Your task to perform on an android device: search for outdoor chairs on article.com Image 0: 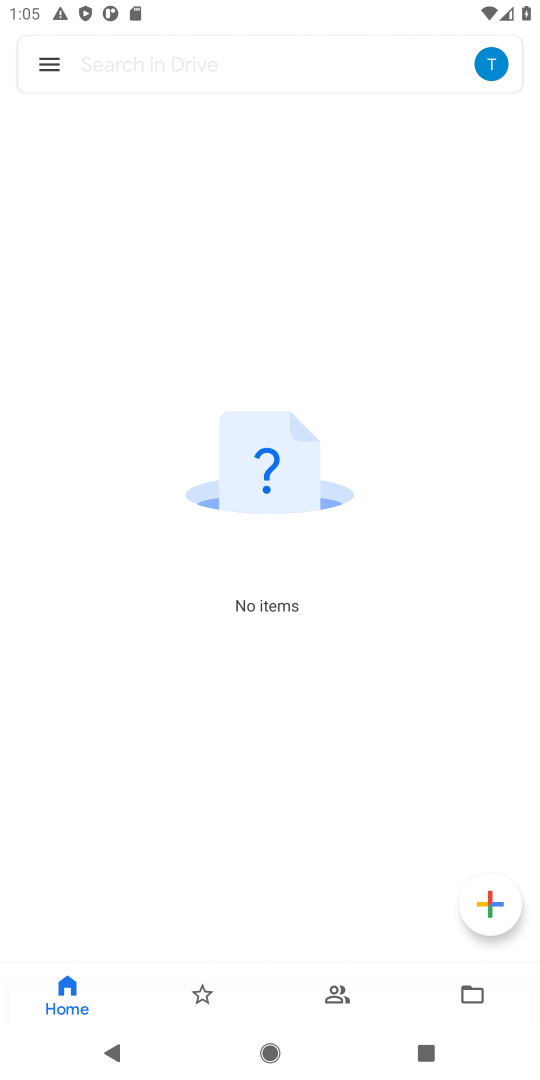
Step 0: press home button
Your task to perform on an android device: search for outdoor chairs on article.com Image 1: 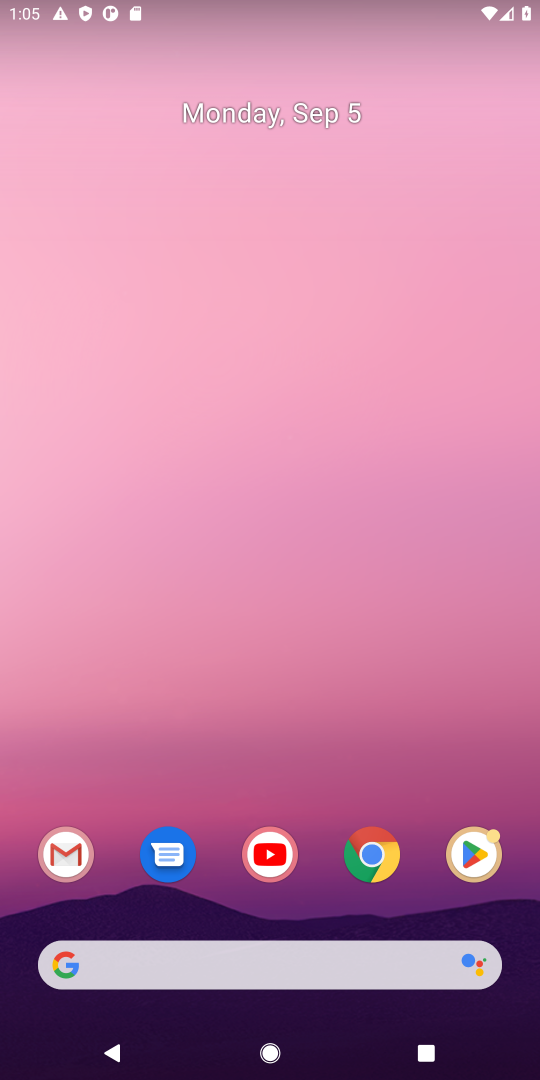
Step 1: click (326, 961)
Your task to perform on an android device: search for outdoor chairs on article.com Image 2: 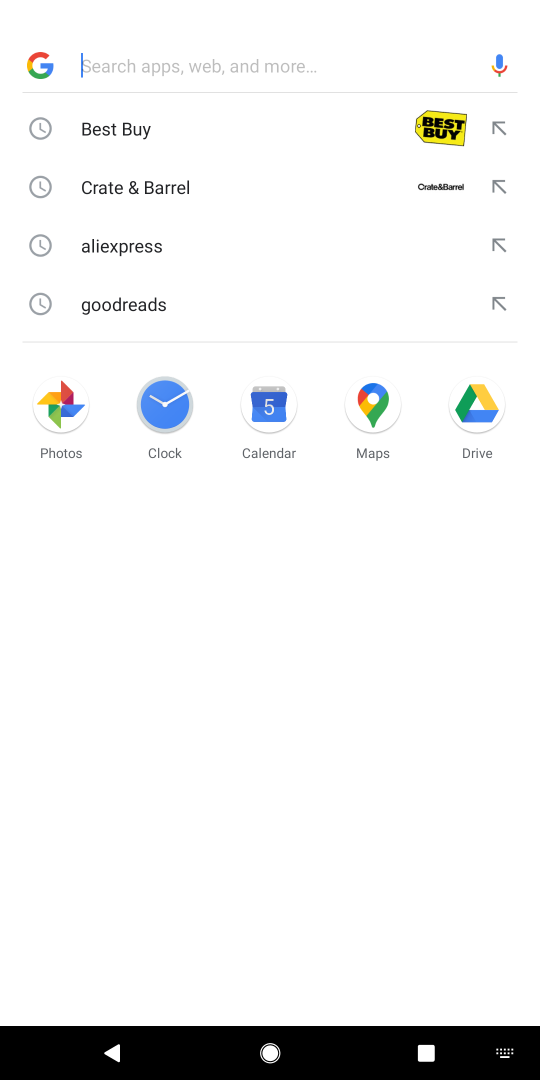
Step 2: press enter
Your task to perform on an android device: search for outdoor chairs on article.com Image 3: 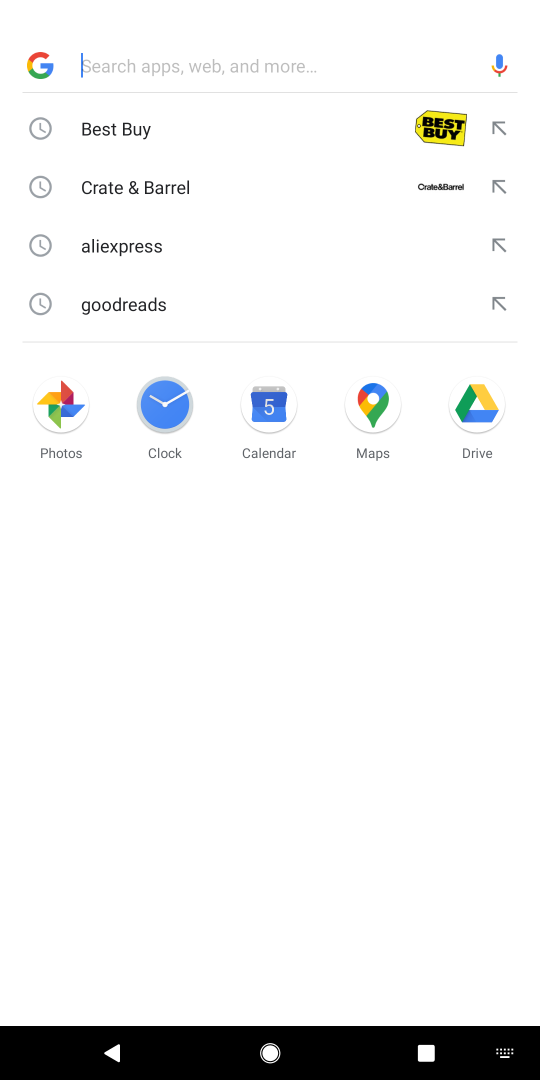
Step 3: type "article.com"
Your task to perform on an android device: search for outdoor chairs on article.com Image 4: 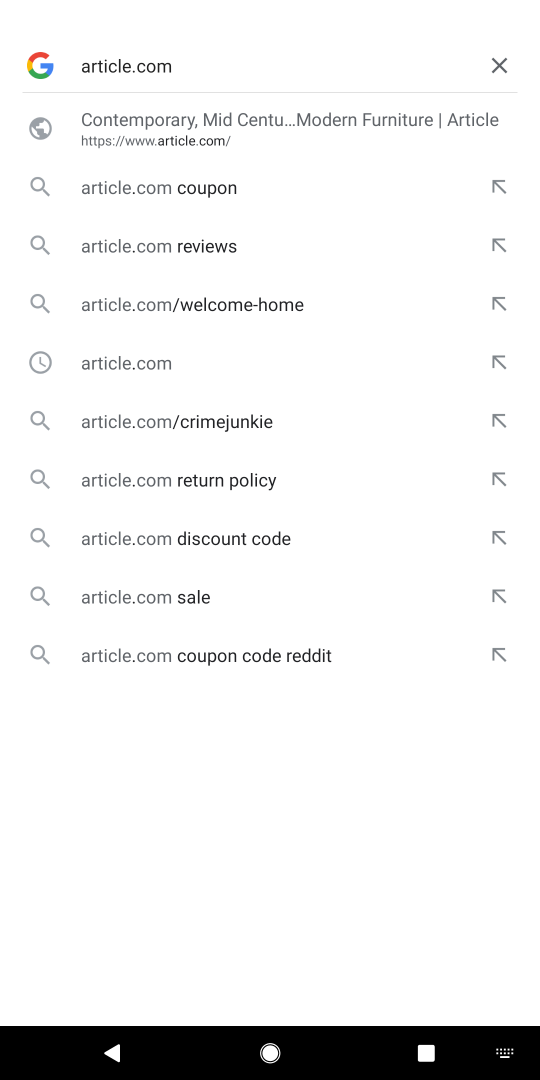
Step 4: click (219, 142)
Your task to perform on an android device: search for outdoor chairs on article.com Image 5: 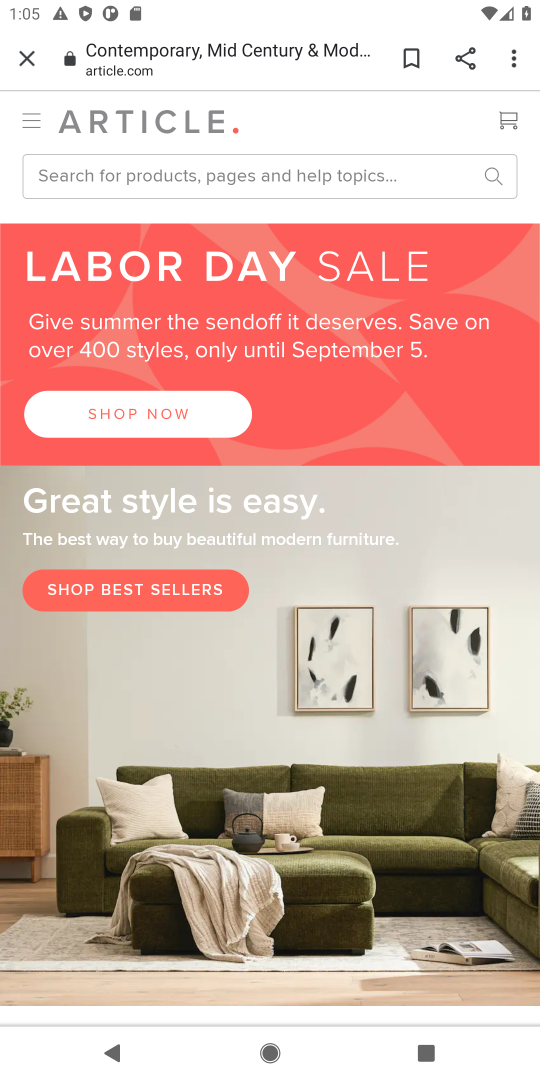
Step 5: click (80, 170)
Your task to perform on an android device: search for outdoor chairs on article.com Image 6: 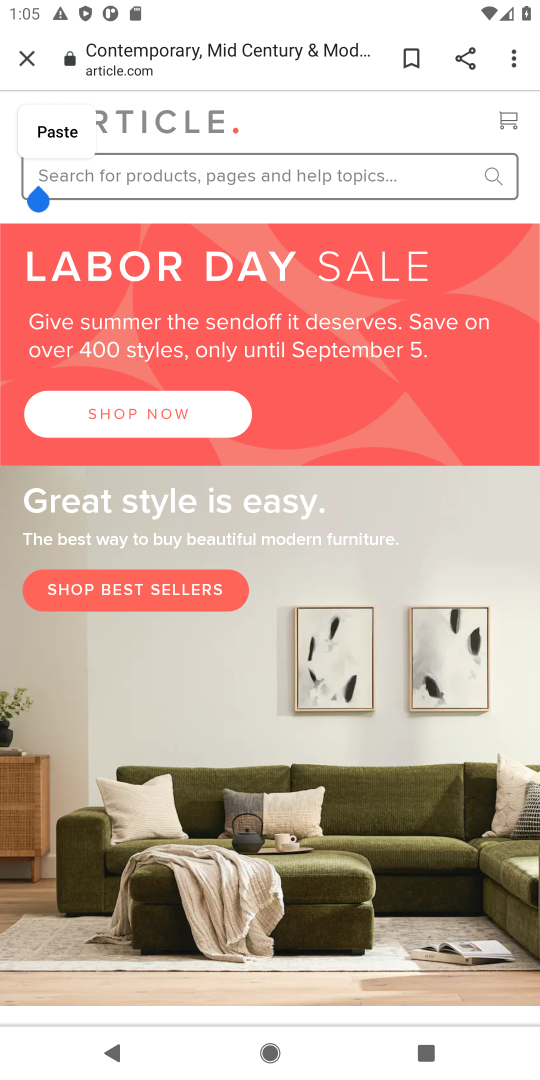
Step 6: press enter
Your task to perform on an android device: search for outdoor chairs on article.com Image 7: 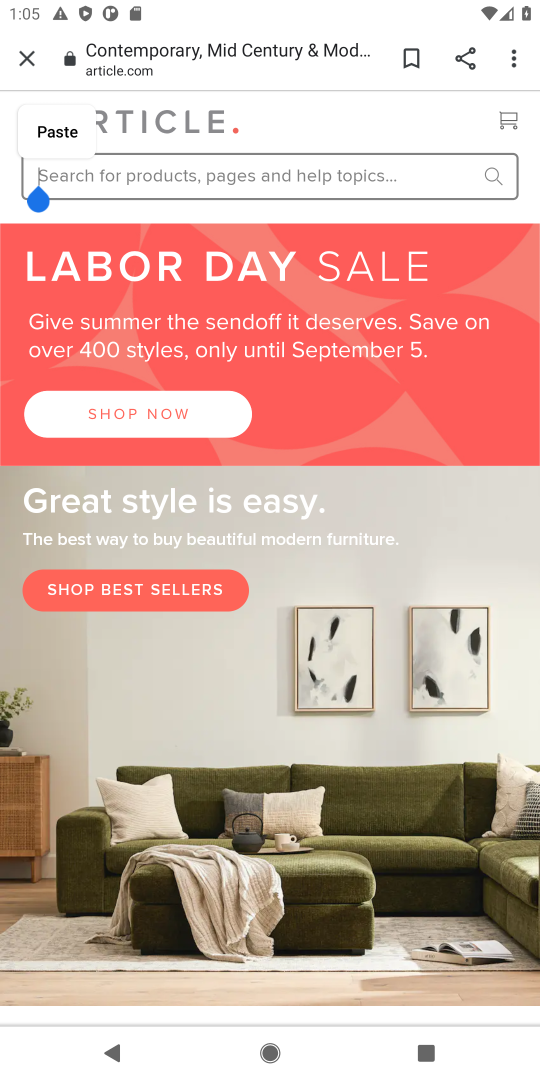
Step 7: type "outdoor chairs"
Your task to perform on an android device: search for outdoor chairs on article.com Image 8: 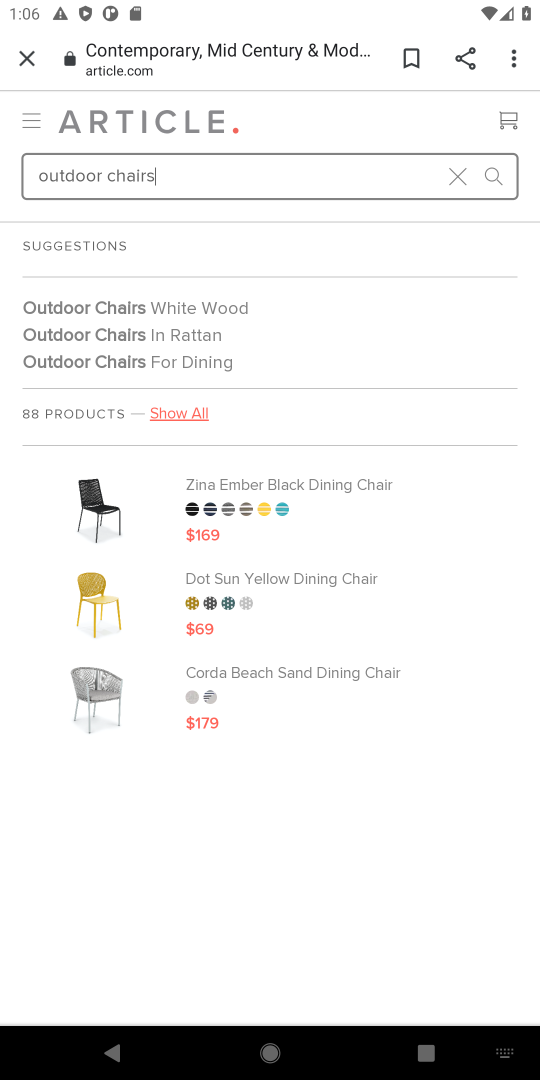
Step 8: task complete